Your task to perform on an android device: Clear the shopping cart on target. Add dell xps to the cart on target Image 0: 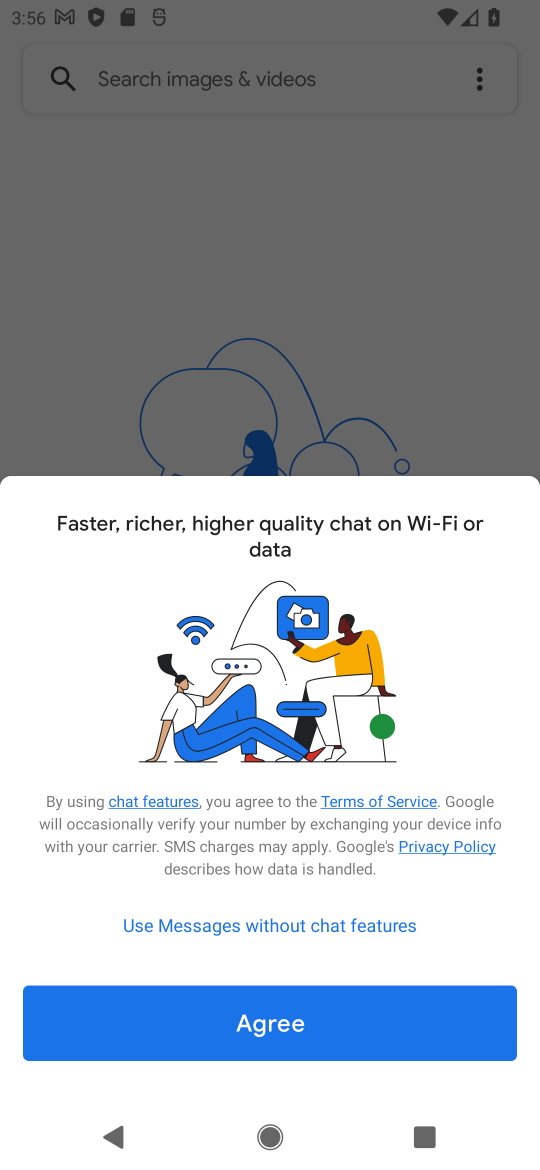
Step 0: press home button
Your task to perform on an android device: Clear the shopping cart on target. Add dell xps to the cart on target Image 1: 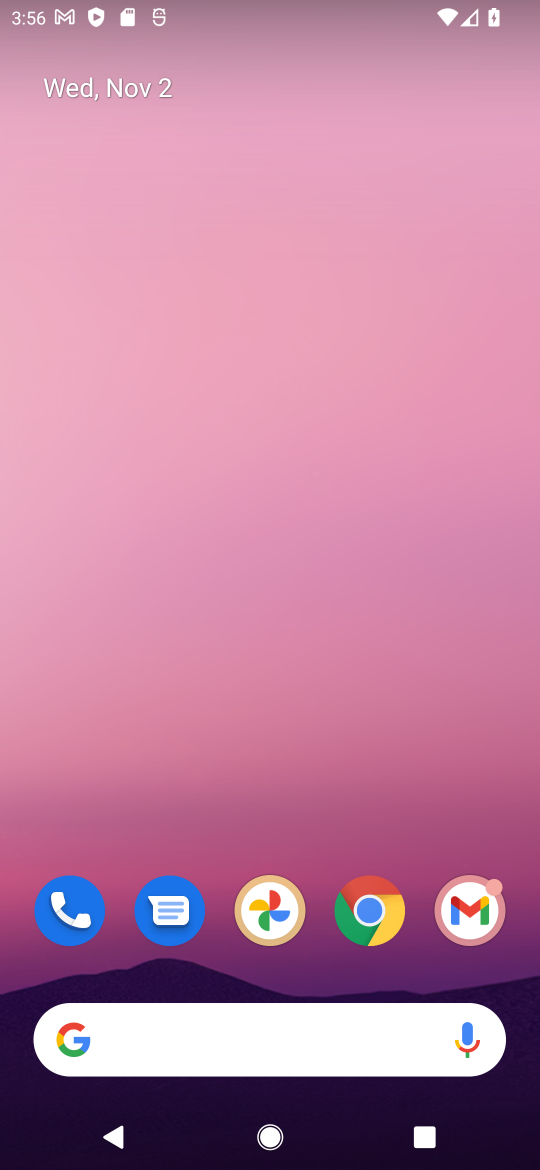
Step 1: click (381, 915)
Your task to perform on an android device: Clear the shopping cart on target. Add dell xps to the cart on target Image 2: 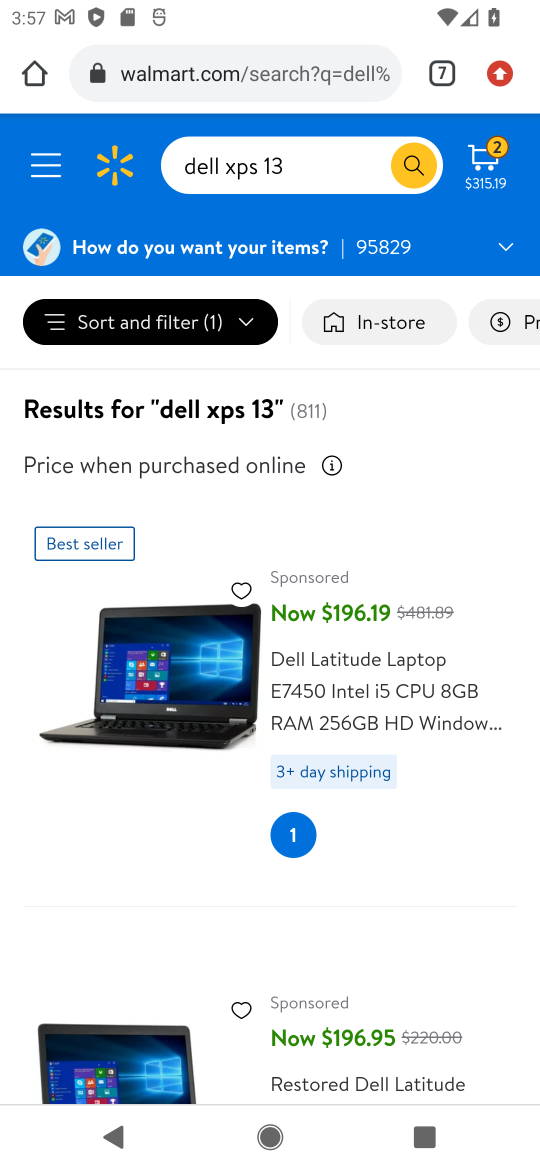
Step 2: click (436, 67)
Your task to perform on an android device: Clear the shopping cart on target. Add dell xps to the cart on target Image 3: 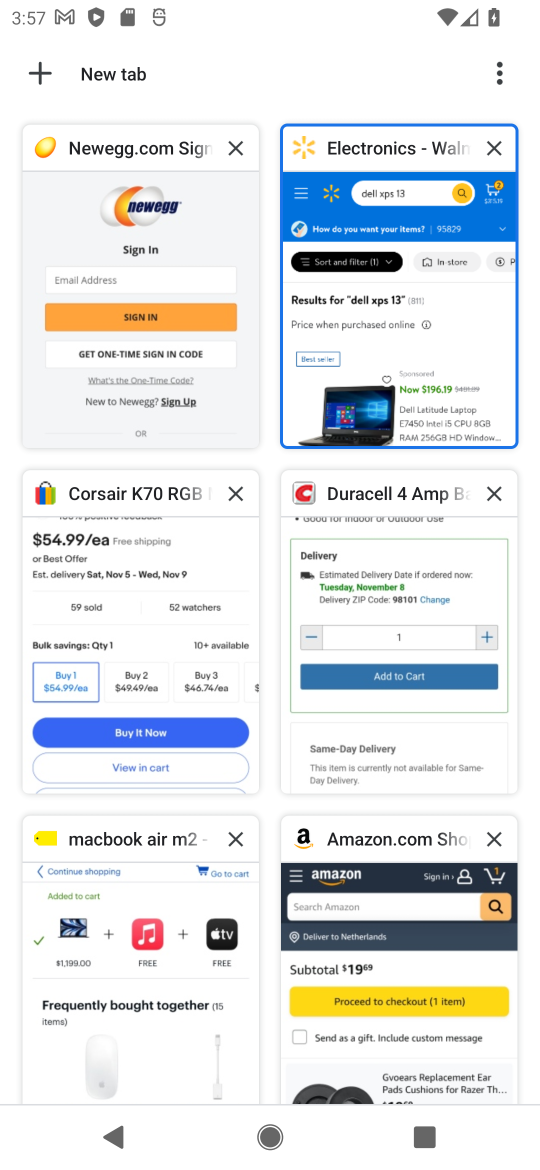
Step 3: drag from (389, 893) to (339, 315)
Your task to perform on an android device: Clear the shopping cart on target. Add dell xps to the cart on target Image 4: 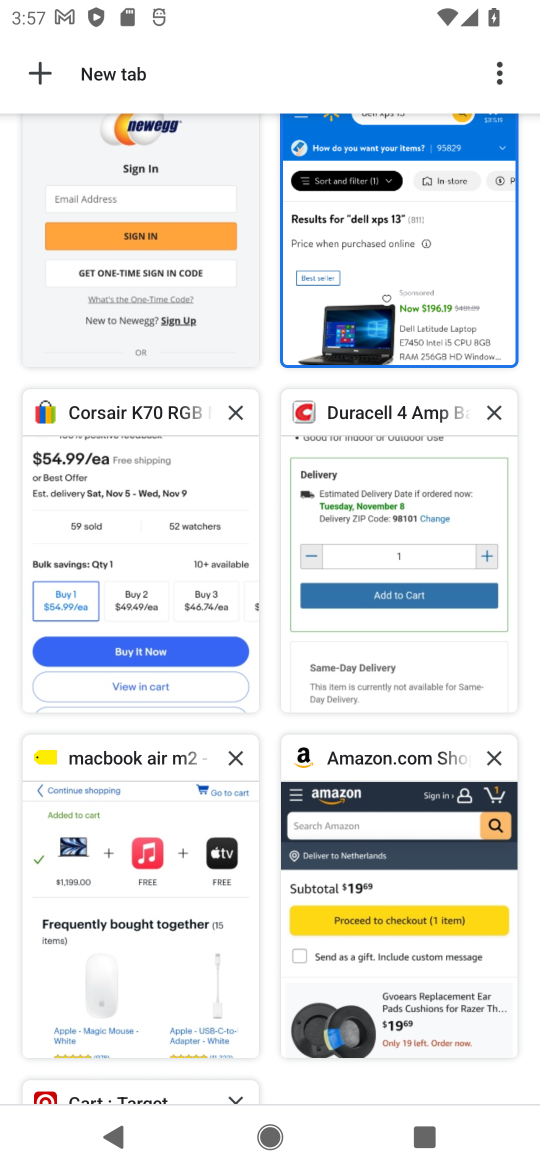
Step 4: drag from (168, 1087) to (171, 495)
Your task to perform on an android device: Clear the shopping cart on target. Add dell xps to the cart on target Image 5: 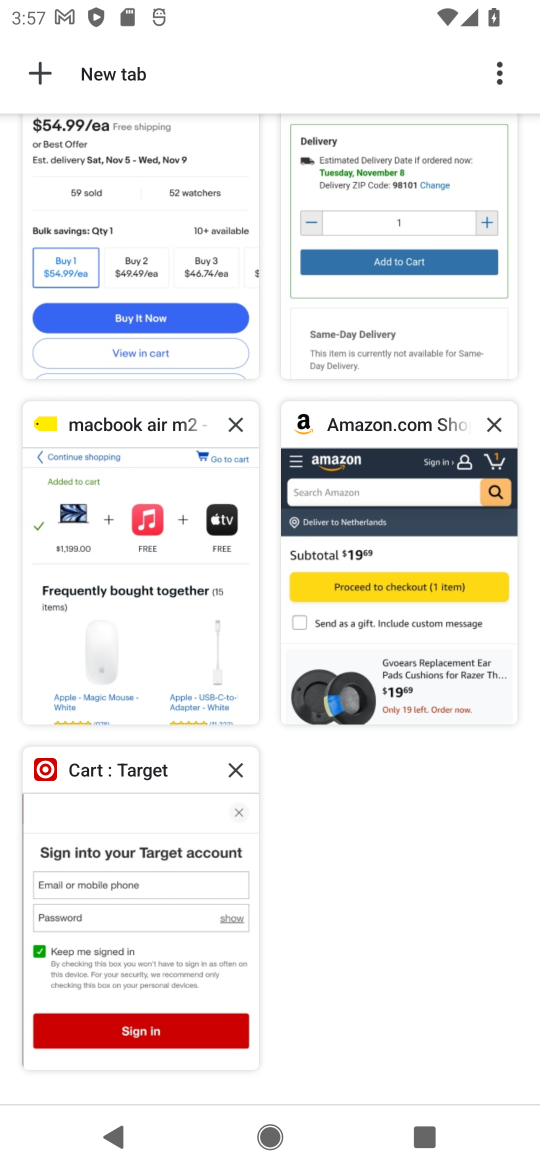
Step 5: click (134, 873)
Your task to perform on an android device: Clear the shopping cart on target. Add dell xps to the cart on target Image 6: 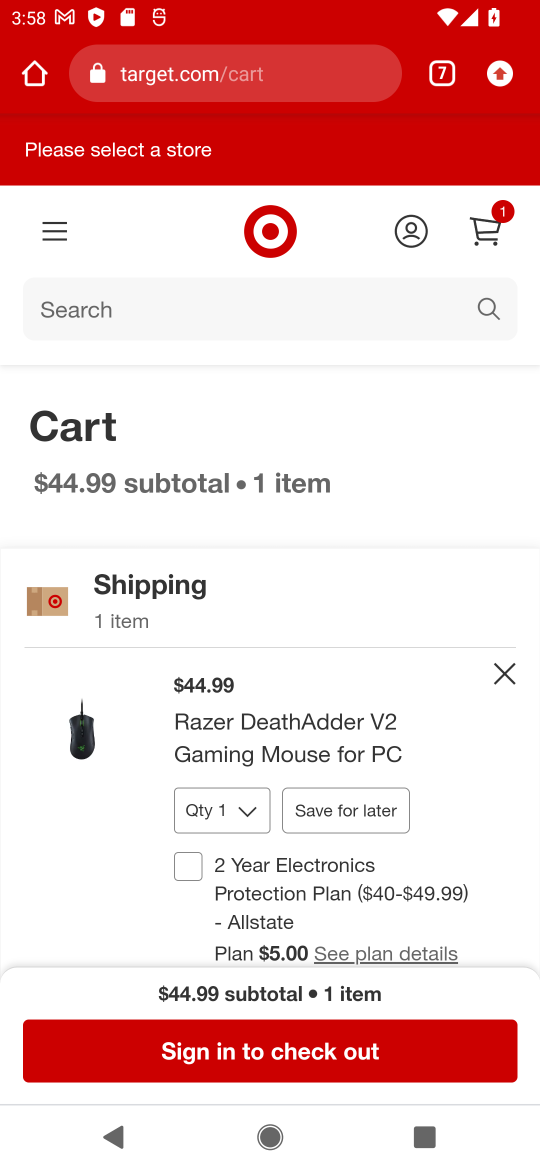
Step 6: click (285, 299)
Your task to perform on an android device: Clear the shopping cart on target. Add dell xps to the cart on target Image 7: 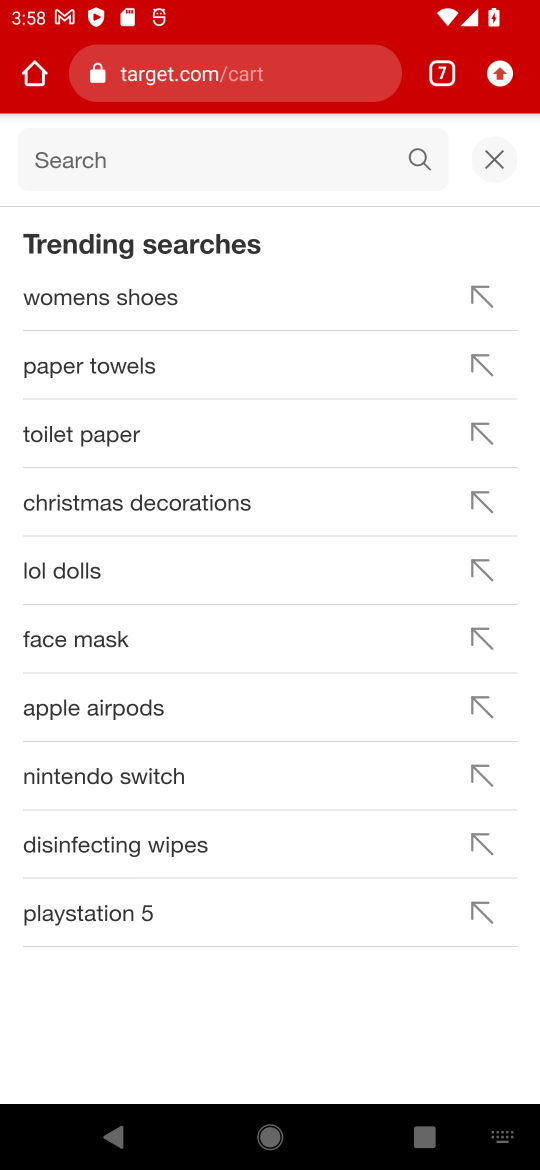
Step 7: type " dell xps"
Your task to perform on an android device: Clear the shopping cart on target. Add dell xps to the cart on target Image 8: 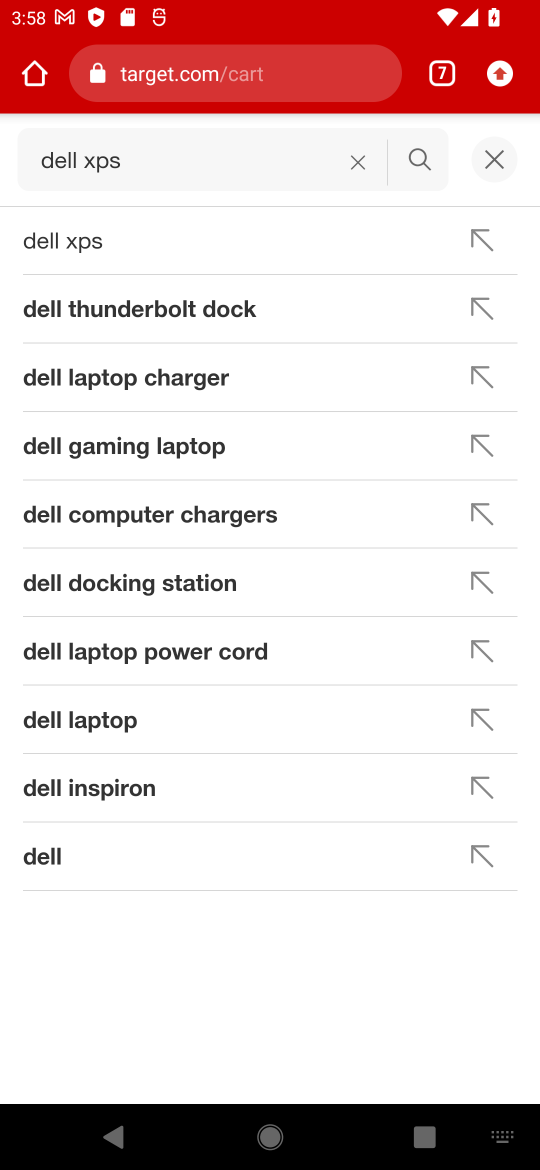
Step 8: click (34, 241)
Your task to perform on an android device: Clear the shopping cart on target. Add dell xps to the cart on target Image 9: 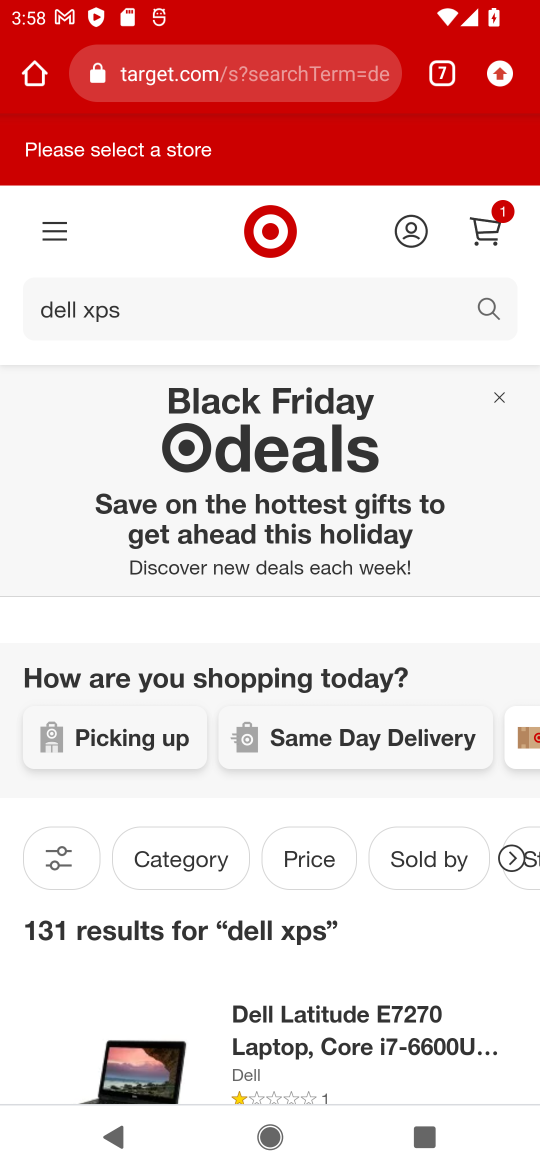
Step 9: drag from (227, 942) to (286, 270)
Your task to perform on an android device: Clear the shopping cart on target. Add dell xps to the cart on target Image 10: 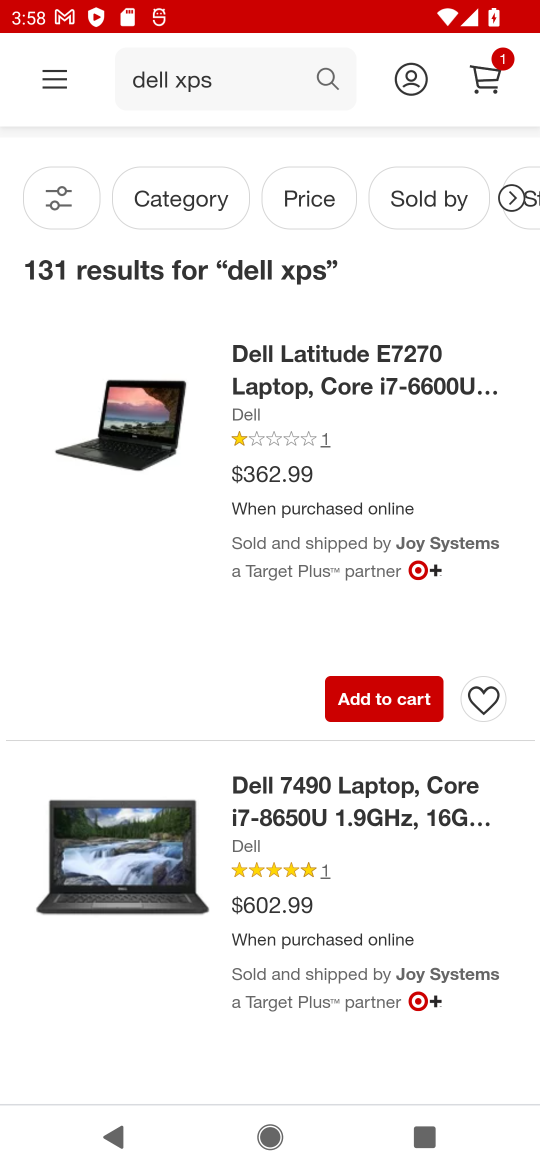
Step 10: click (403, 688)
Your task to perform on an android device: Clear the shopping cart on target. Add dell xps to the cart on target Image 11: 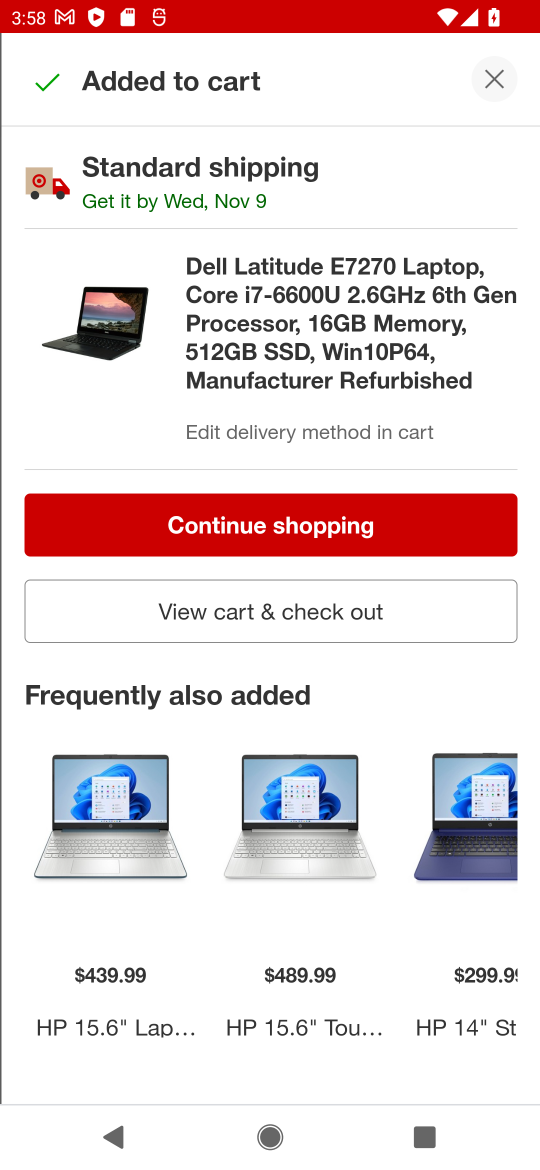
Step 11: task complete